Your task to perform on an android device: set the timer Image 0: 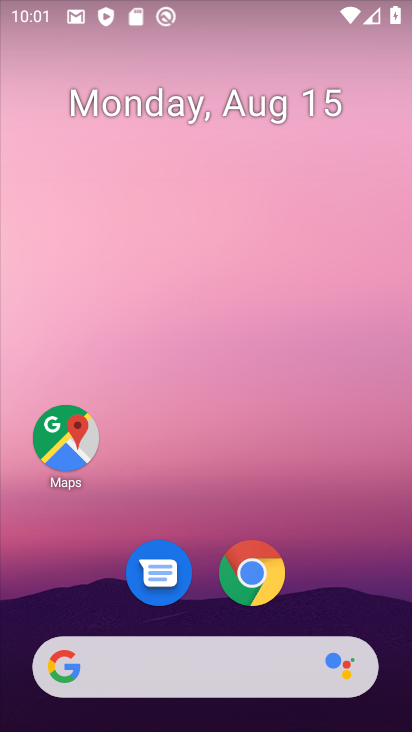
Step 0: drag from (200, 522) to (226, 79)
Your task to perform on an android device: set the timer Image 1: 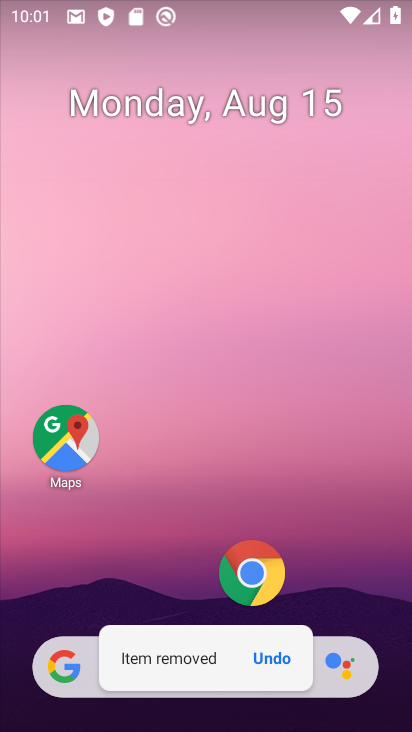
Step 1: drag from (338, 590) to (270, 0)
Your task to perform on an android device: set the timer Image 2: 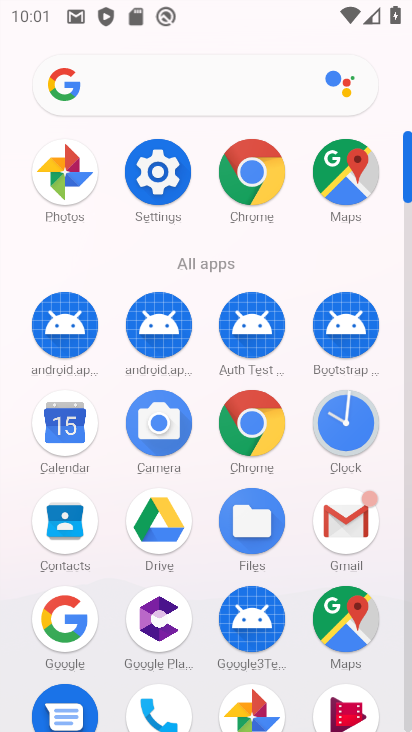
Step 2: click (347, 422)
Your task to perform on an android device: set the timer Image 3: 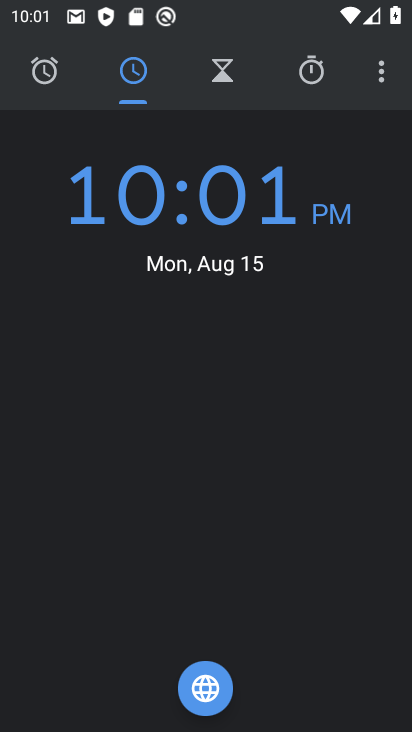
Step 3: click (224, 68)
Your task to perform on an android device: set the timer Image 4: 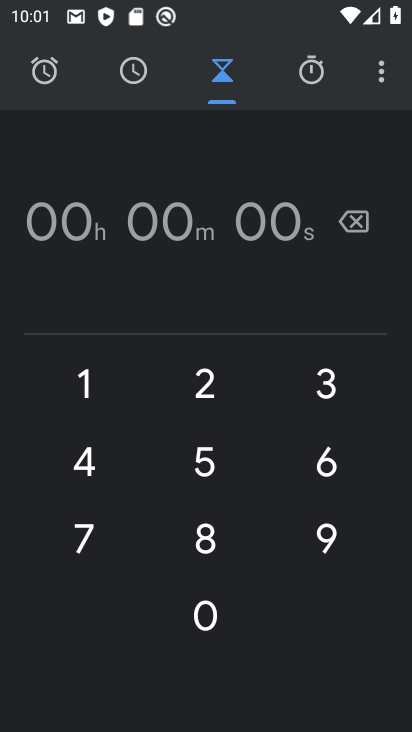
Step 4: click (87, 386)
Your task to perform on an android device: set the timer Image 5: 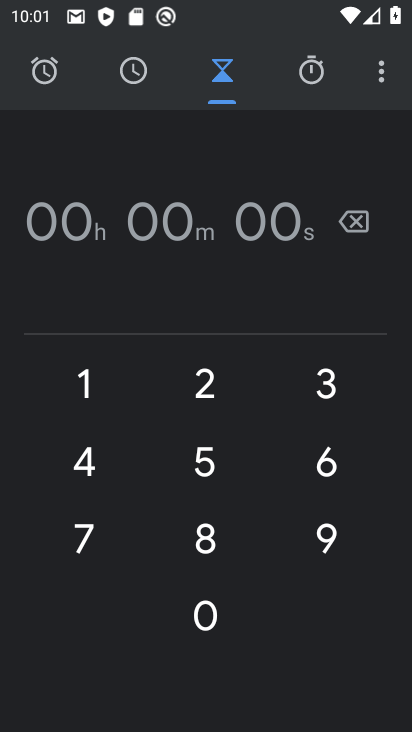
Step 5: click (87, 386)
Your task to perform on an android device: set the timer Image 6: 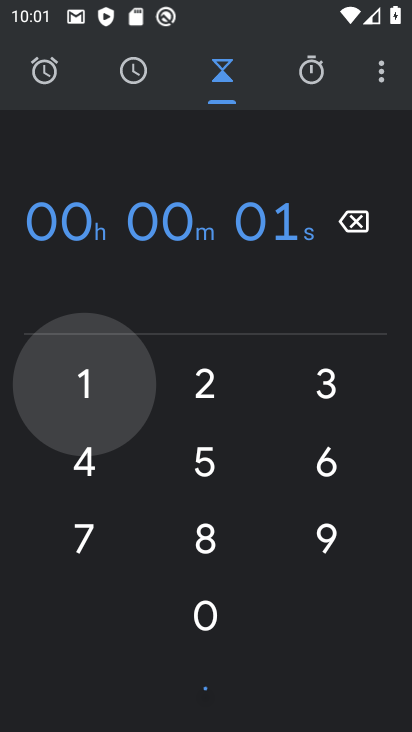
Step 6: click (87, 386)
Your task to perform on an android device: set the timer Image 7: 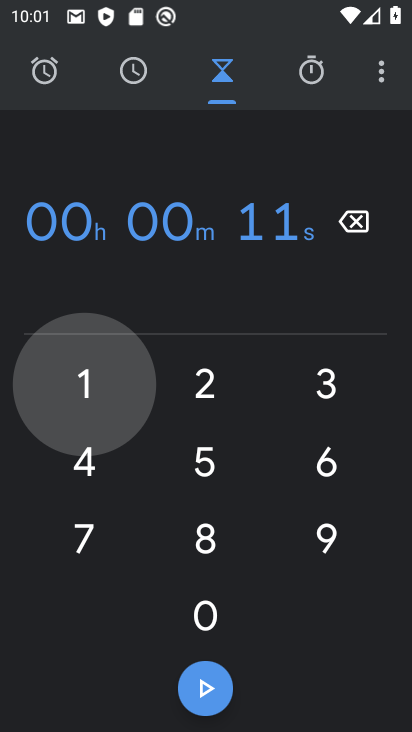
Step 7: click (87, 386)
Your task to perform on an android device: set the timer Image 8: 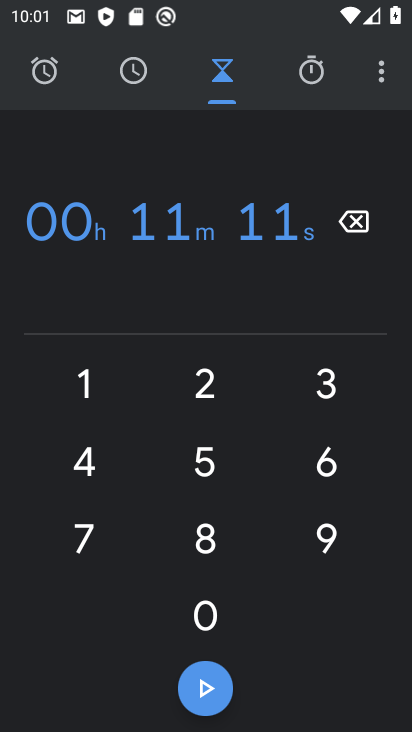
Step 8: click (87, 386)
Your task to perform on an android device: set the timer Image 9: 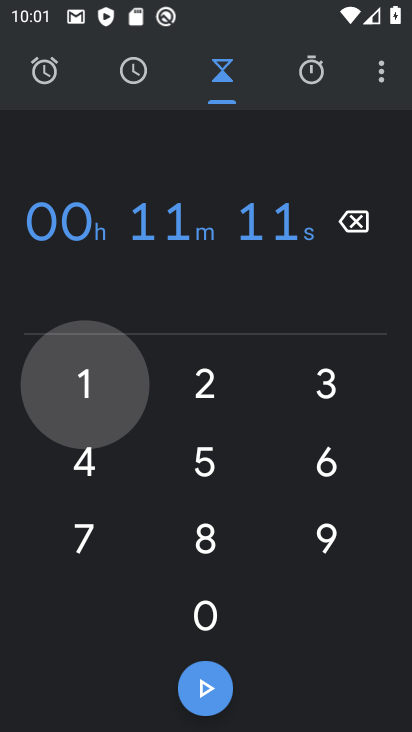
Step 9: click (87, 386)
Your task to perform on an android device: set the timer Image 10: 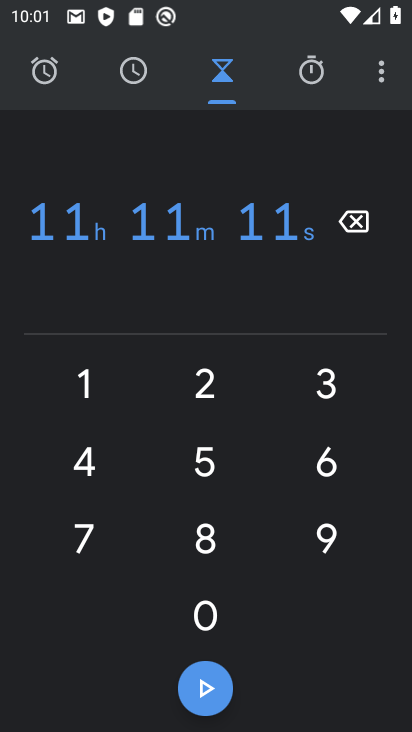
Step 10: task complete